Your task to perform on an android device: Open Yahoo.com Image 0: 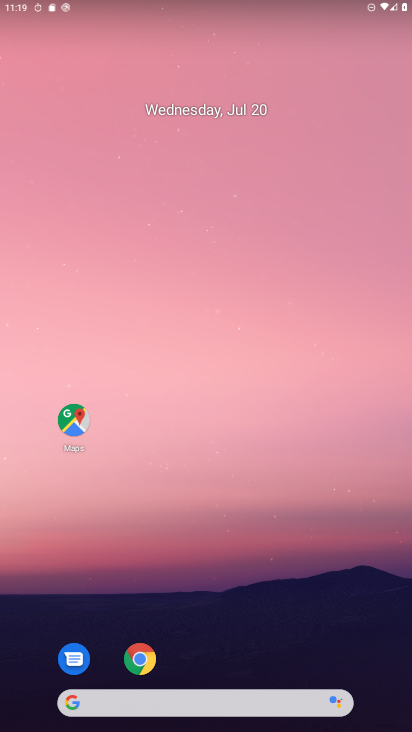
Step 0: drag from (304, 589) to (308, 24)
Your task to perform on an android device: Open Yahoo.com Image 1: 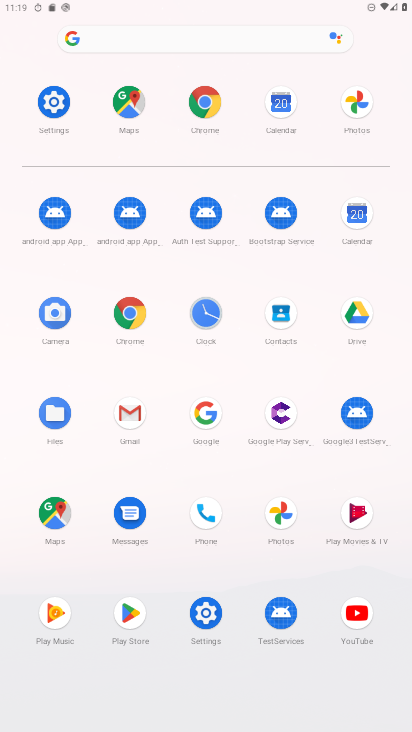
Step 1: click (203, 109)
Your task to perform on an android device: Open Yahoo.com Image 2: 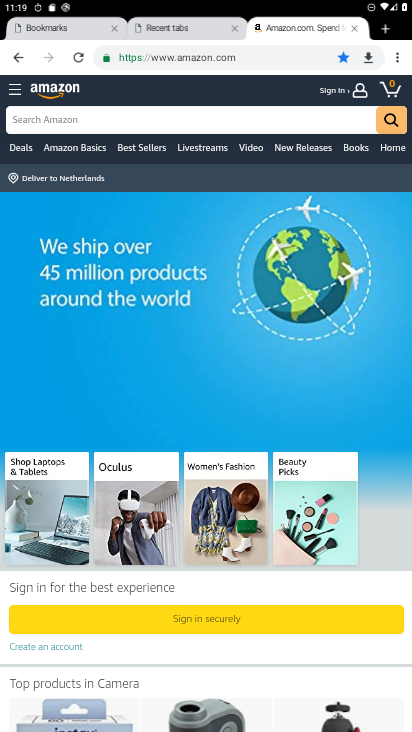
Step 2: click (209, 56)
Your task to perform on an android device: Open Yahoo.com Image 3: 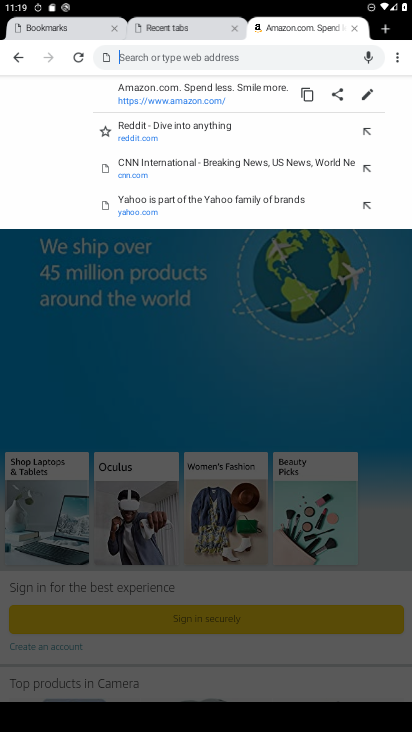
Step 3: type "yahoo.com"
Your task to perform on an android device: Open Yahoo.com Image 4: 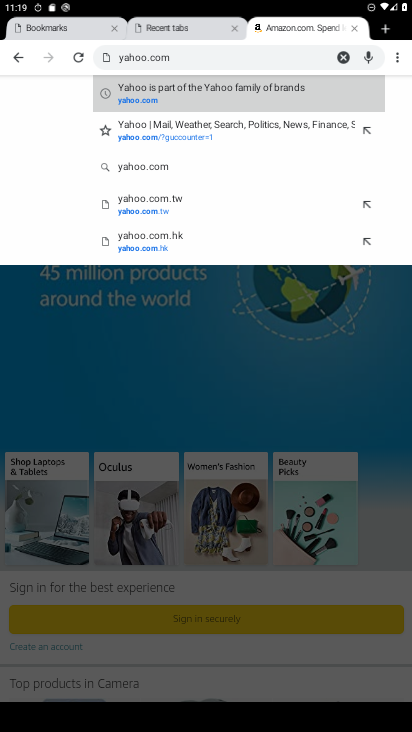
Step 4: click (167, 101)
Your task to perform on an android device: Open Yahoo.com Image 5: 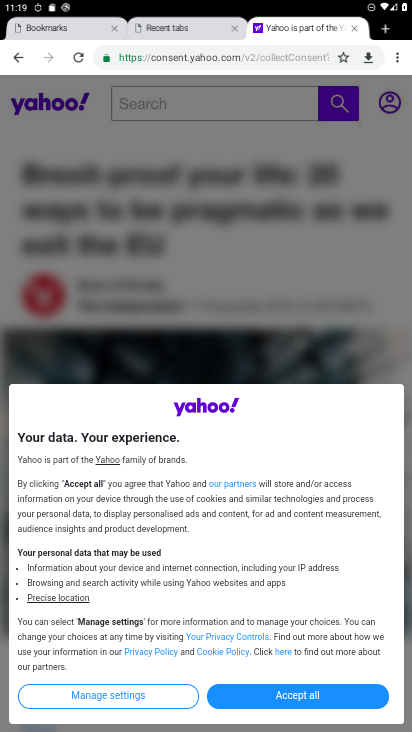
Step 5: task complete